Your task to perform on an android device: Go to display settings Image 0: 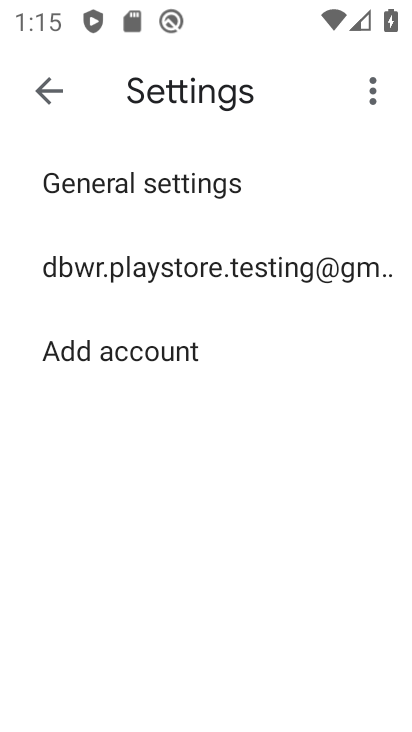
Step 0: press back button
Your task to perform on an android device: Go to display settings Image 1: 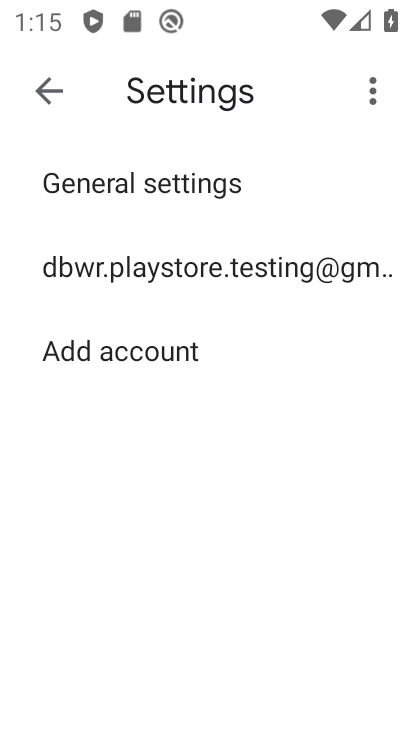
Step 1: press back button
Your task to perform on an android device: Go to display settings Image 2: 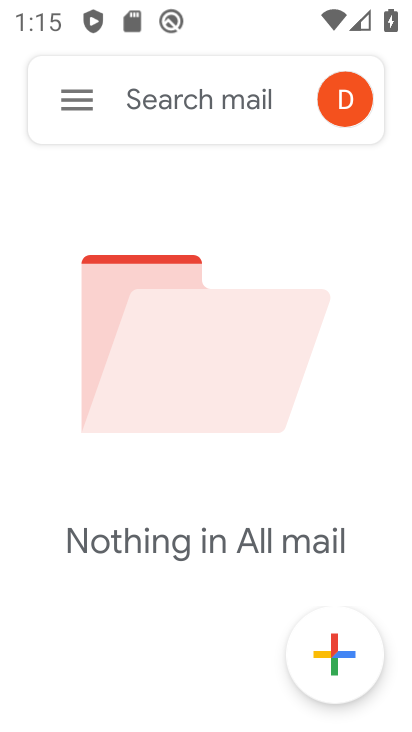
Step 2: press back button
Your task to perform on an android device: Go to display settings Image 3: 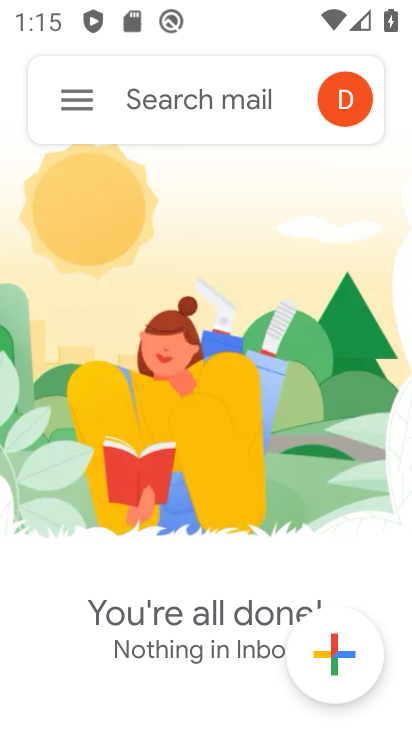
Step 3: press back button
Your task to perform on an android device: Go to display settings Image 4: 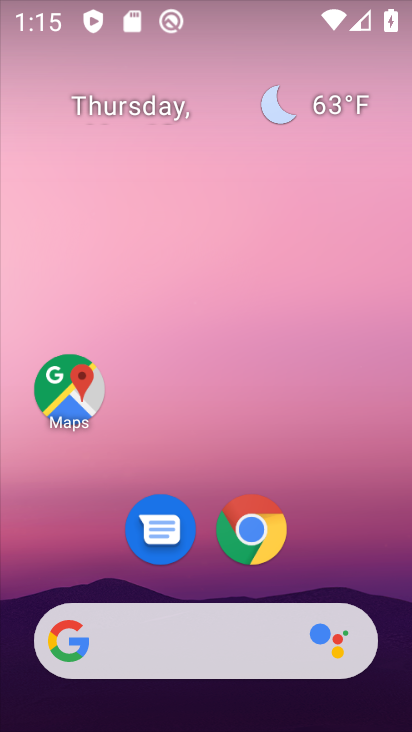
Step 4: drag from (319, 521) to (235, 119)
Your task to perform on an android device: Go to display settings Image 5: 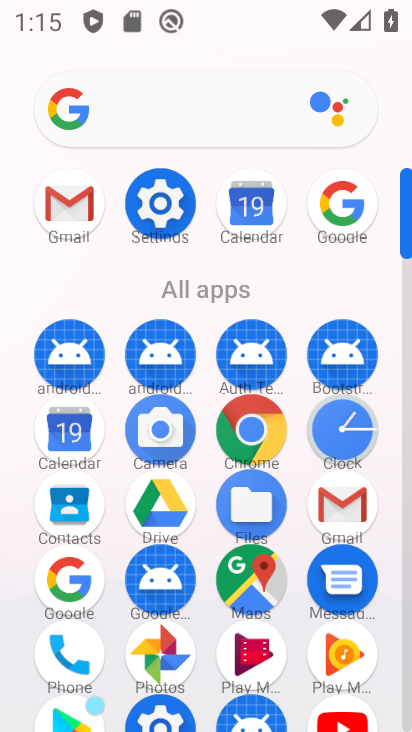
Step 5: click (162, 202)
Your task to perform on an android device: Go to display settings Image 6: 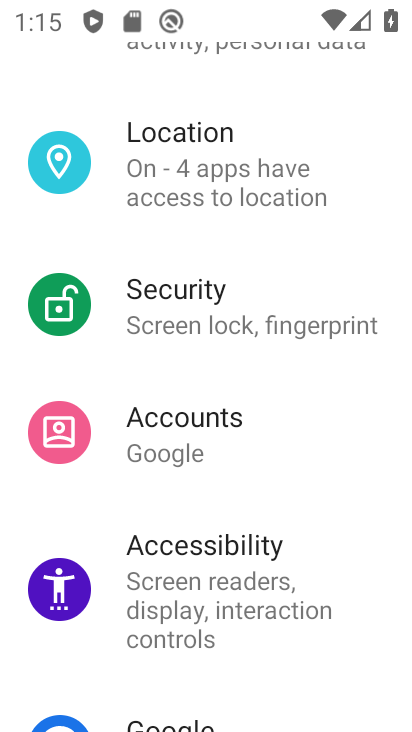
Step 6: drag from (250, 264) to (268, 387)
Your task to perform on an android device: Go to display settings Image 7: 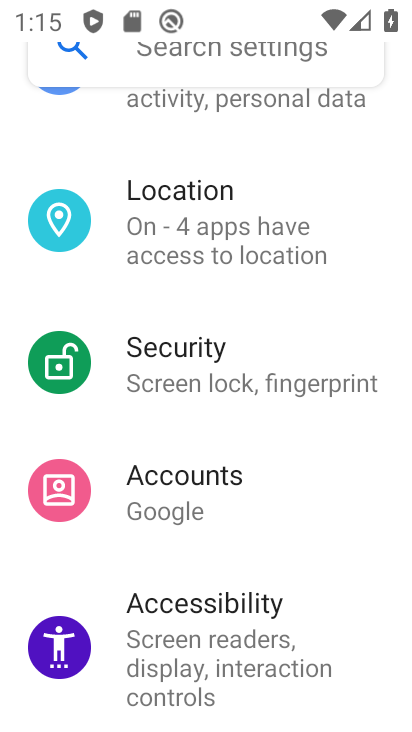
Step 7: drag from (266, 171) to (282, 338)
Your task to perform on an android device: Go to display settings Image 8: 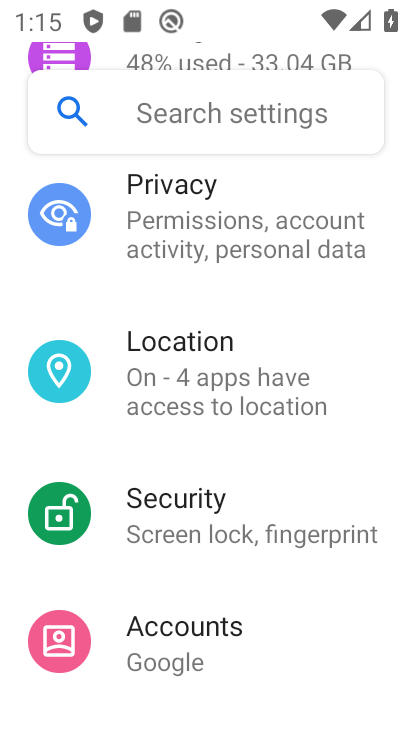
Step 8: drag from (248, 190) to (223, 380)
Your task to perform on an android device: Go to display settings Image 9: 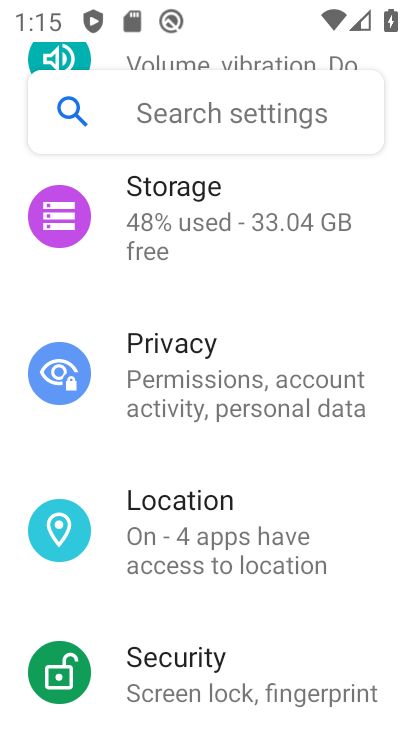
Step 9: drag from (199, 270) to (233, 437)
Your task to perform on an android device: Go to display settings Image 10: 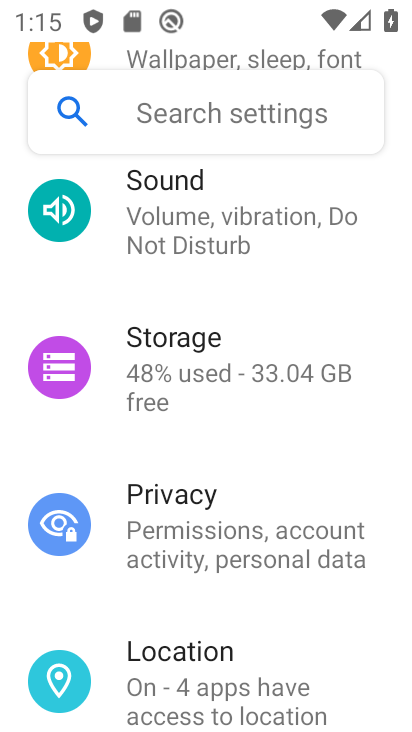
Step 10: drag from (211, 292) to (267, 445)
Your task to perform on an android device: Go to display settings Image 11: 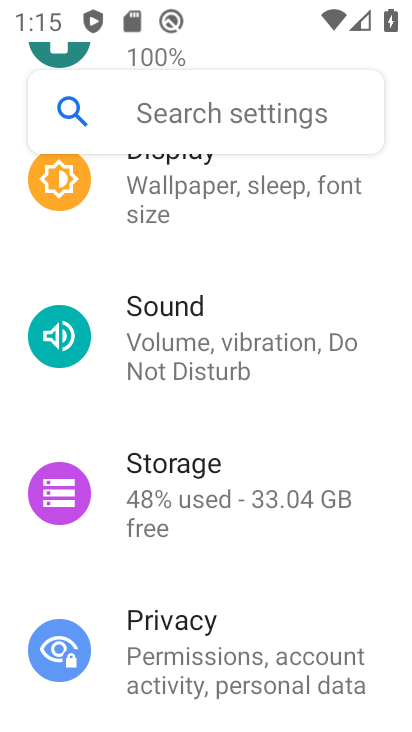
Step 11: drag from (209, 277) to (262, 431)
Your task to perform on an android device: Go to display settings Image 12: 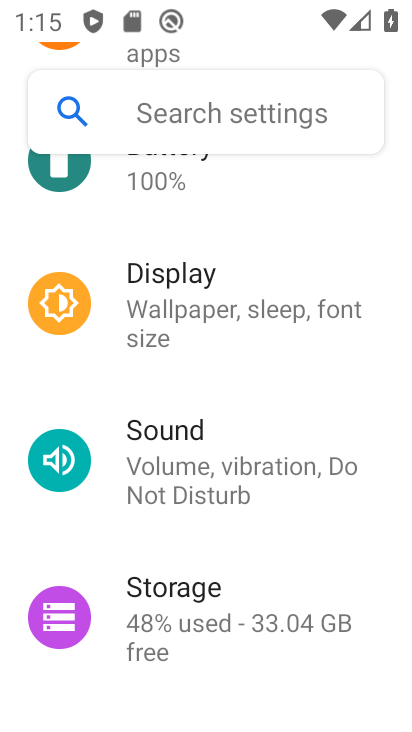
Step 12: click (187, 282)
Your task to perform on an android device: Go to display settings Image 13: 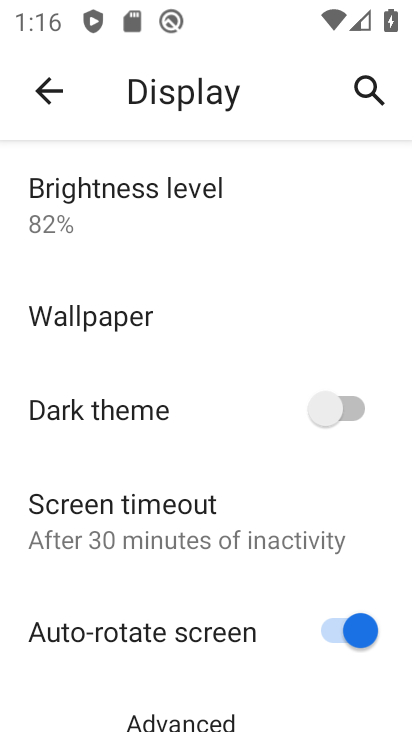
Step 13: task complete